Your task to perform on an android device: Open wifi settings Image 0: 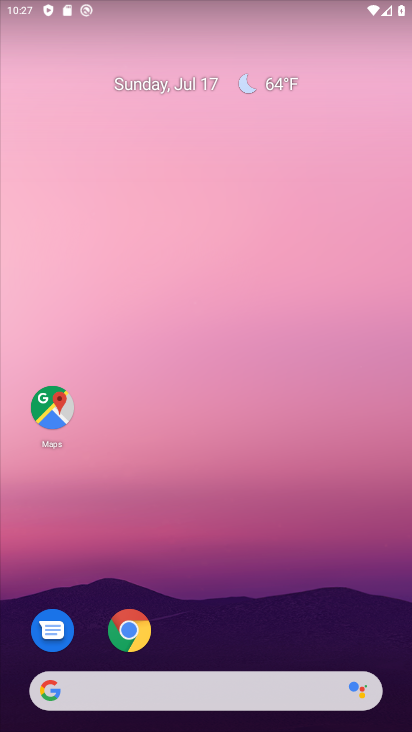
Step 0: drag from (379, 645) to (288, 98)
Your task to perform on an android device: Open wifi settings Image 1: 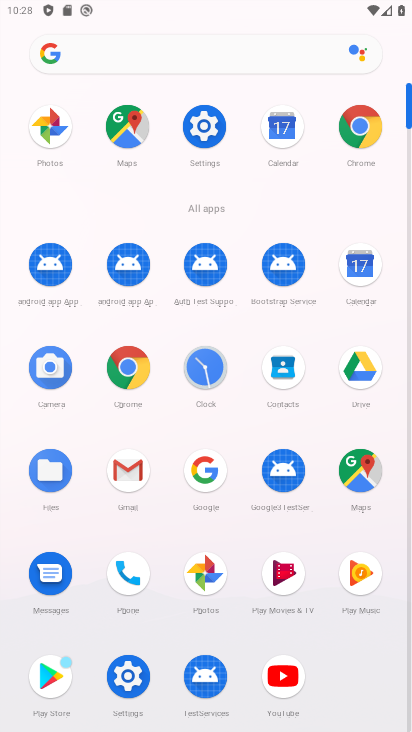
Step 1: click (128, 673)
Your task to perform on an android device: Open wifi settings Image 2: 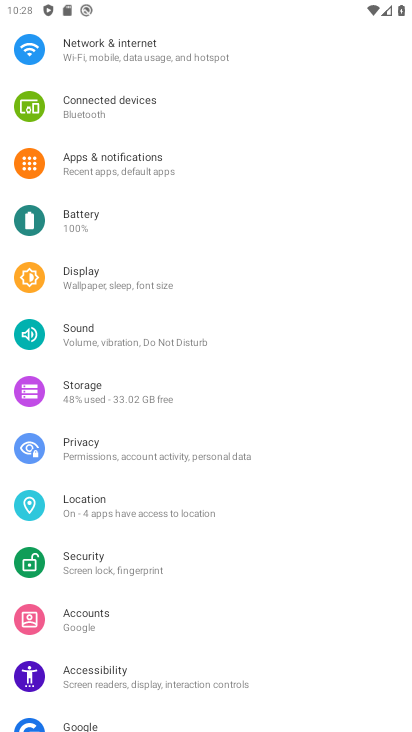
Step 2: drag from (267, 183) to (269, 415)
Your task to perform on an android device: Open wifi settings Image 3: 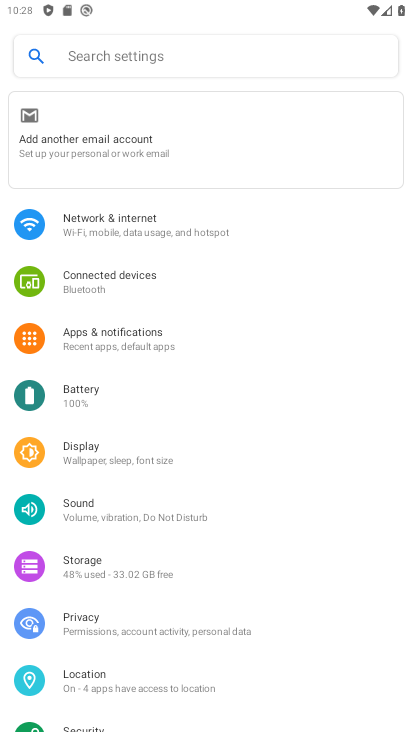
Step 3: click (106, 224)
Your task to perform on an android device: Open wifi settings Image 4: 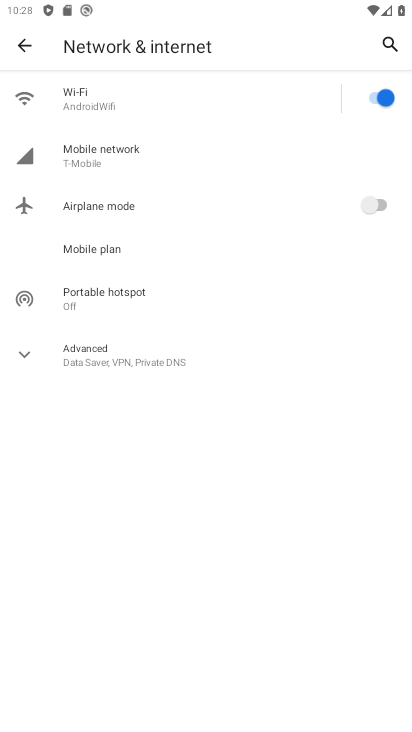
Step 4: click (88, 101)
Your task to perform on an android device: Open wifi settings Image 5: 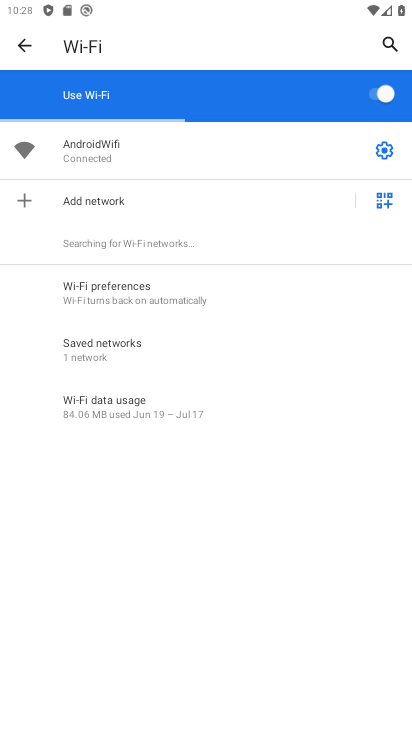
Step 5: click (385, 147)
Your task to perform on an android device: Open wifi settings Image 6: 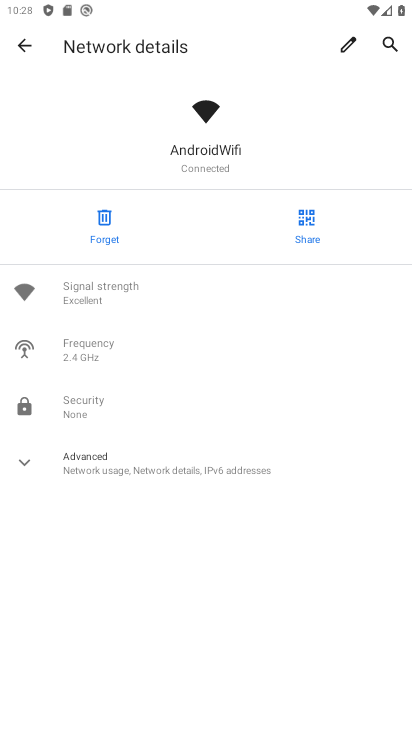
Step 6: task complete